Your task to perform on an android device: turn on bluetooth scan Image 0: 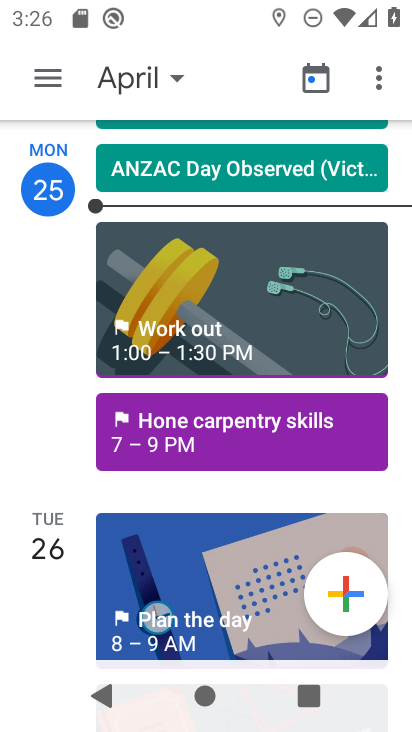
Step 0: press home button
Your task to perform on an android device: turn on bluetooth scan Image 1: 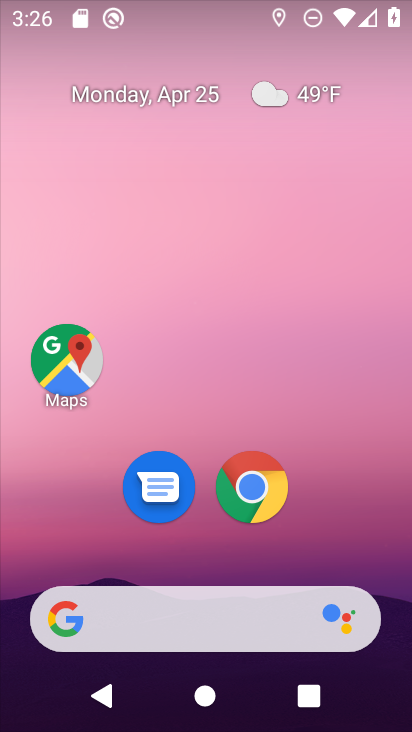
Step 1: drag from (361, 553) to (352, 68)
Your task to perform on an android device: turn on bluetooth scan Image 2: 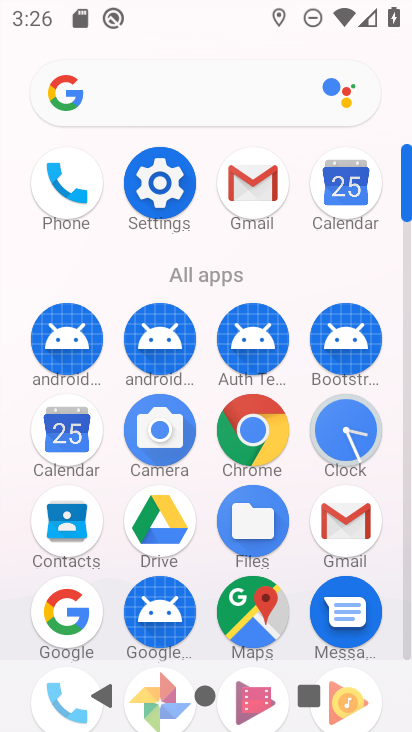
Step 2: click (158, 187)
Your task to perform on an android device: turn on bluetooth scan Image 3: 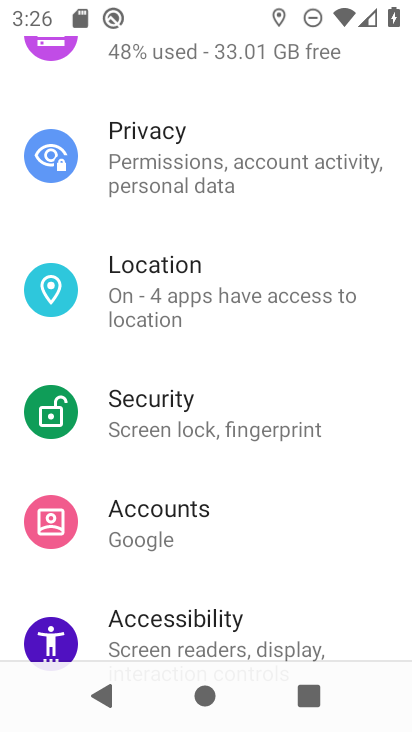
Step 3: click (161, 302)
Your task to perform on an android device: turn on bluetooth scan Image 4: 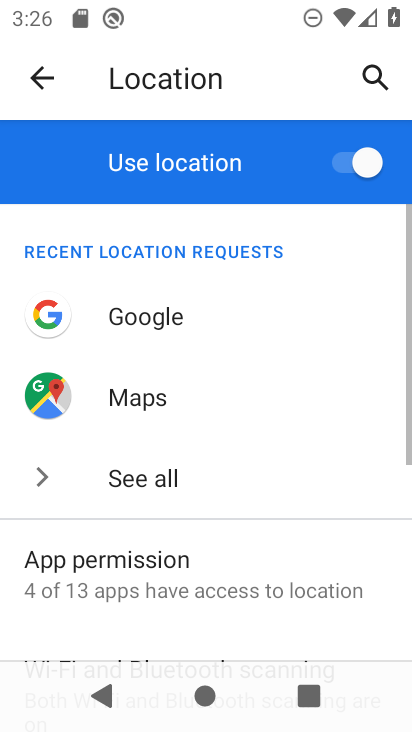
Step 4: drag from (226, 556) to (209, 179)
Your task to perform on an android device: turn on bluetooth scan Image 5: 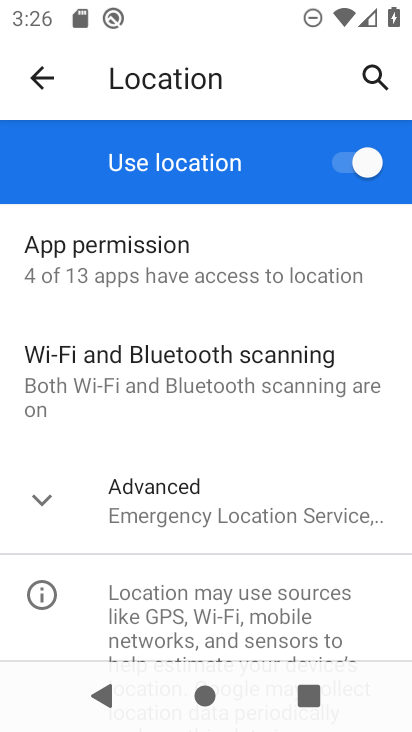
Step 5: click (115, 375)
Your task to perform on an android device: turn on bluetooth scan Image 6: 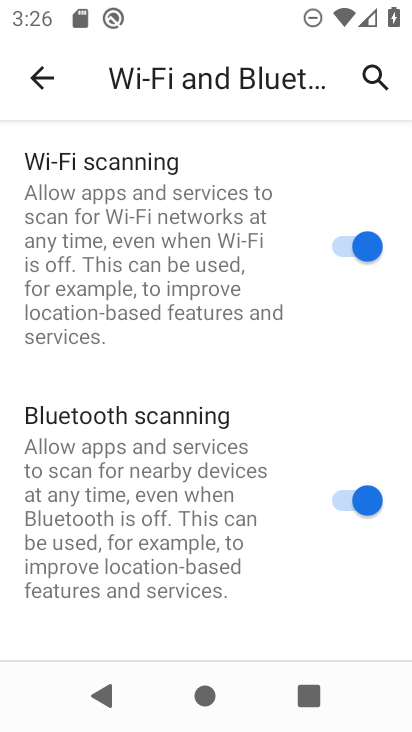
Step 6: task complete